Your task to perform on an android device: Go to location settings Image 0: 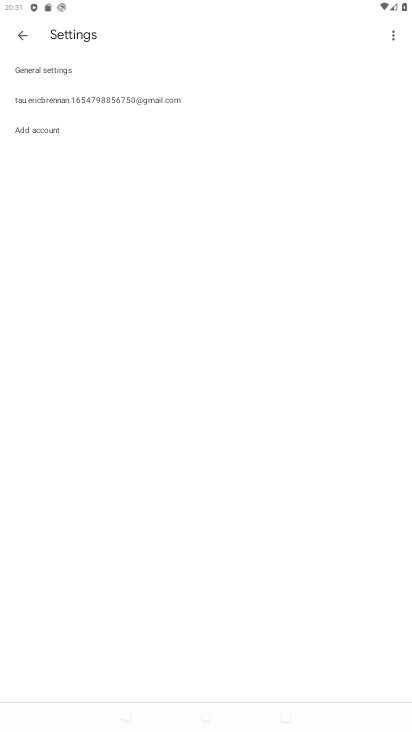
Step 0: press home button
Your task to perform on an android device: Go to location settings Image 1: 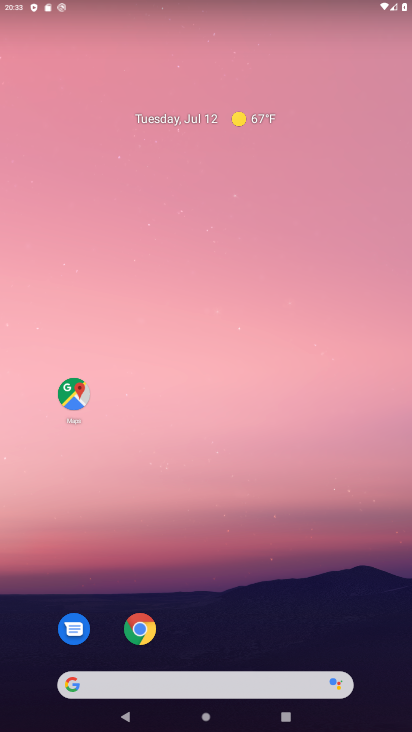
Step 1: drag from (154, 557) to (279, 37)
Your task to perform on an android device: Go to location settings Image 2: 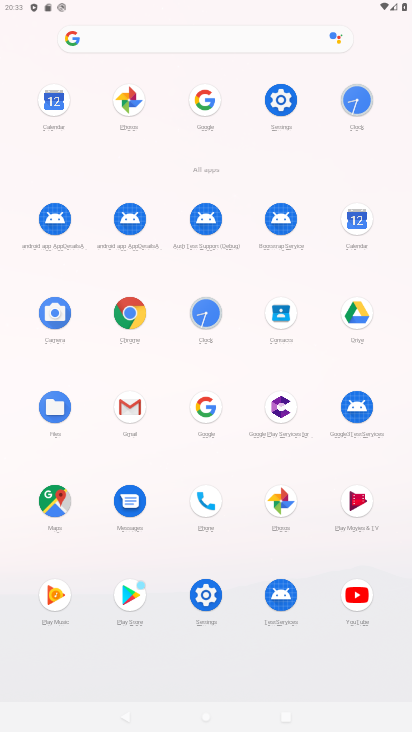
Step 2: click (274, 101)
Your task to perform on an android device: Go to location settings Image 3: 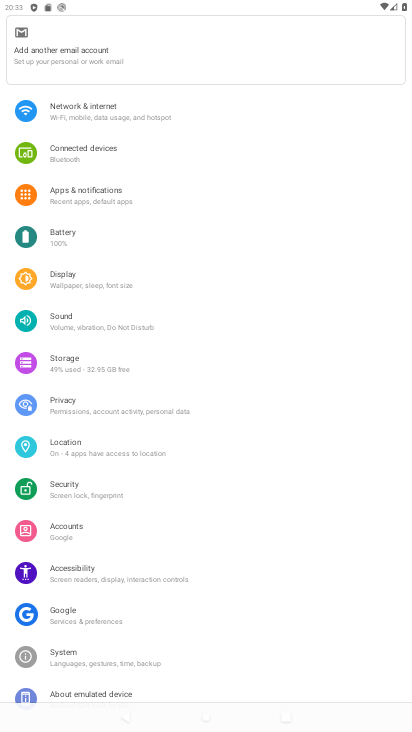
Step 3: click (80, 452)
Your task to perform on an android device: Go to location settings Image 4: 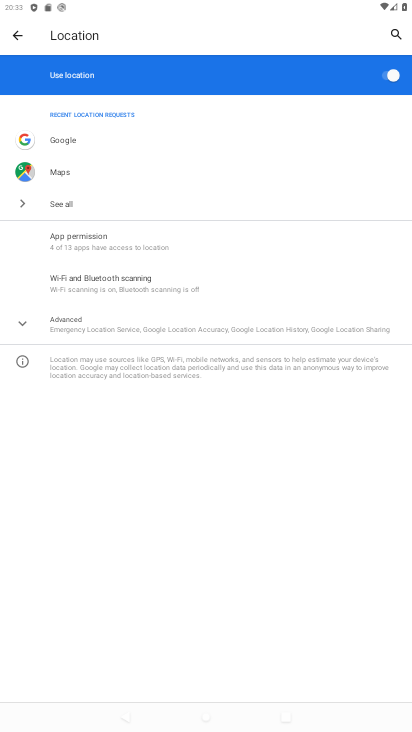
Step 4: task complete